Your task to perform on an android device: Go to Google maps Image 0: 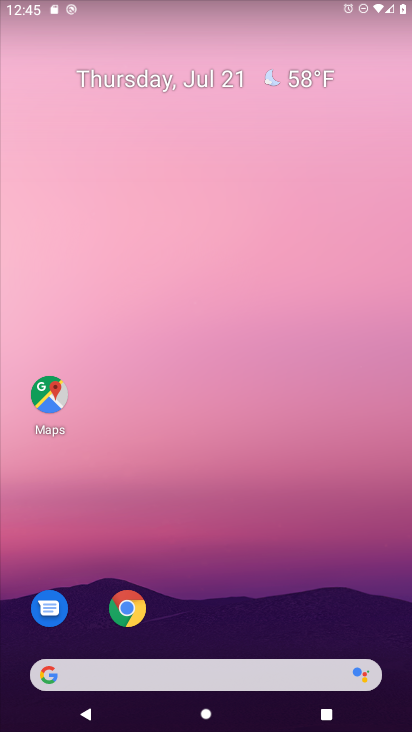
Step 0: press home button
Your task to perform on an android device: Go to Google maps Image 1: 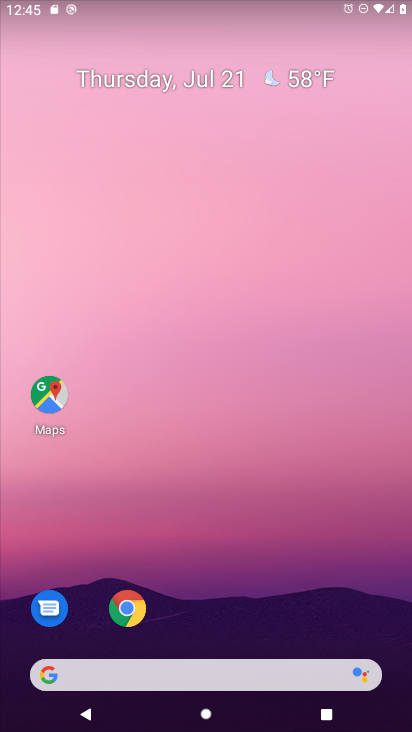
Step 1: drag from (249, 638) to (252, 427)
Your task to perform on an android device: Go to Google maps Image 2: 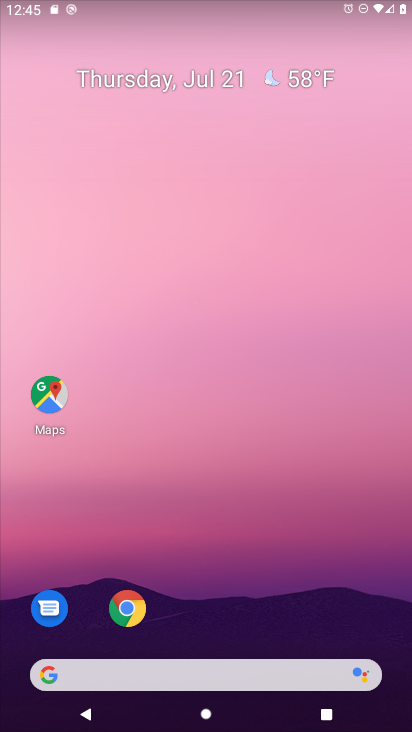
Step 2: drag from (270, 604) to (282, 143)
Your task to perform on an android device: Go to Google maps Image 3: 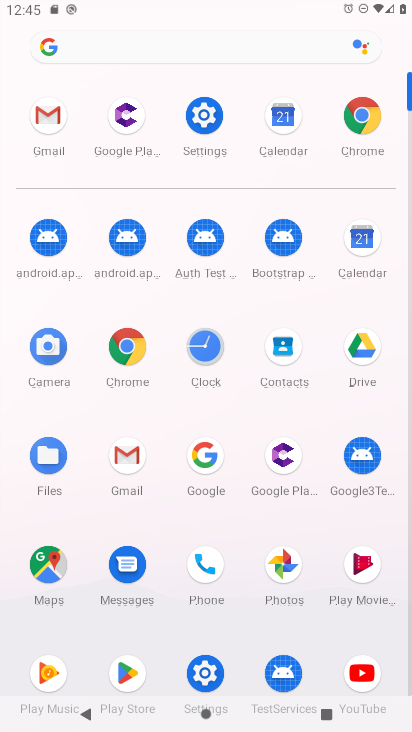
Step 3: click (42, 571)
Your task to perform on an android device: Go to Google maps Image 4: 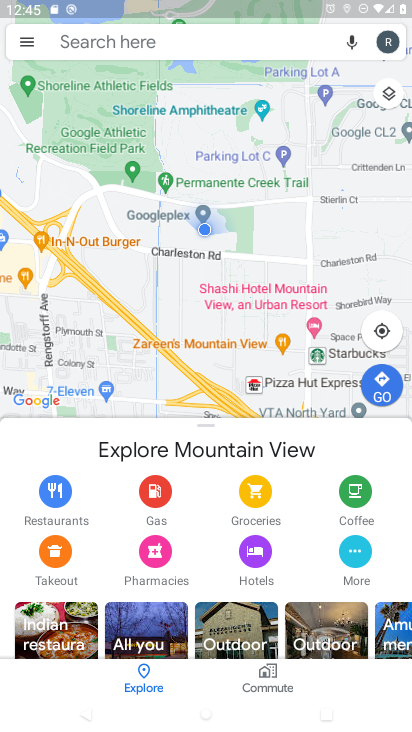
Step 4: task complete